Your task to perform on an android device: Open notification settings Image 0: 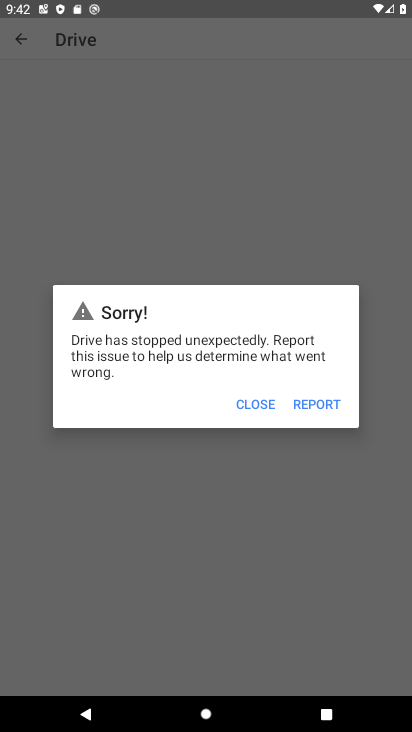
Step 0: press home button
Your task to perform on an android device: Open notification settings Image 1: 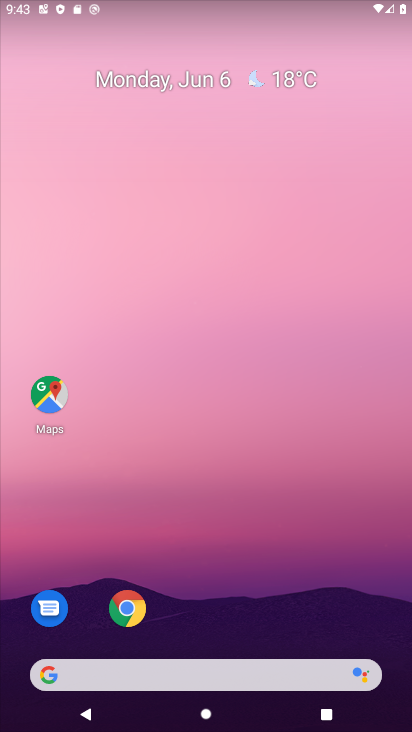
Step 1: drag from (248, 614) to (200, 151)
Your task to perform on an android device: Open notification settings Image 2: 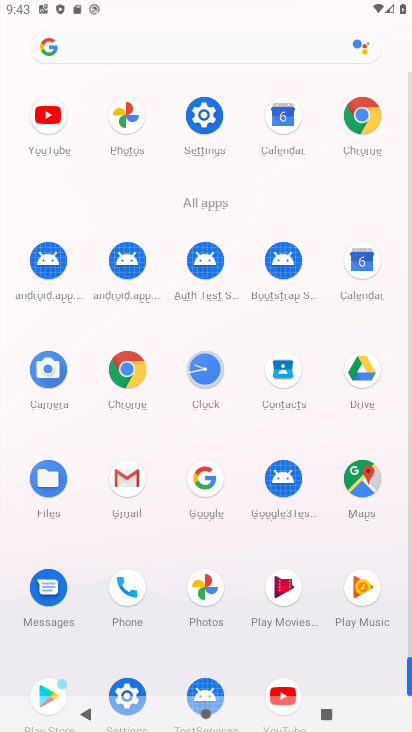
Step 2: click (205, 114)
Your task to perform on an android device: Open notification settings Image 3: 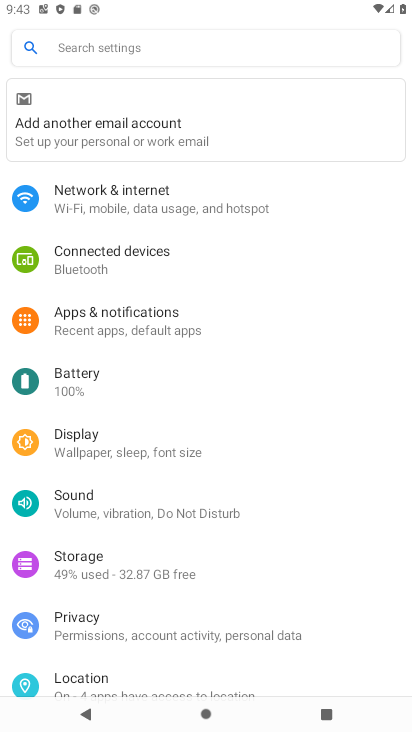
Step 3: click (131, 314)
Your task to perform on an android device: Open notification settings Image 4: 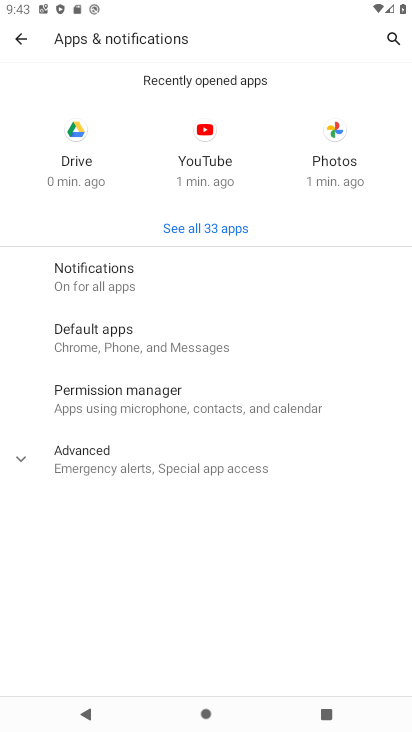
Step 4: click (112, 267)
Your task to perform on an android device: Open notification settings Image 5: 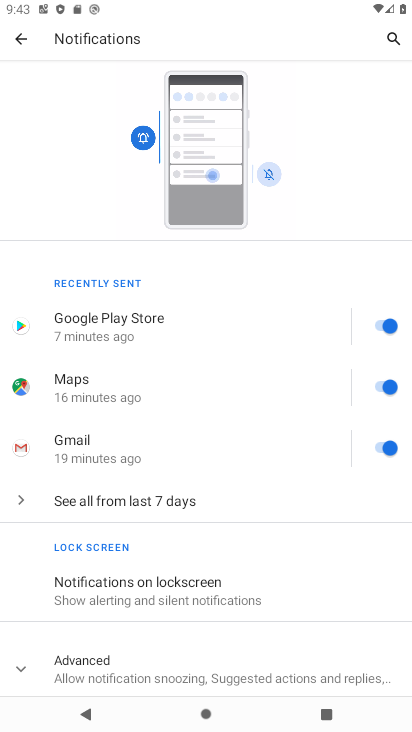
Step 5: task complete